Your task to perform on an android device: Open settings on Google Maps Image 0: 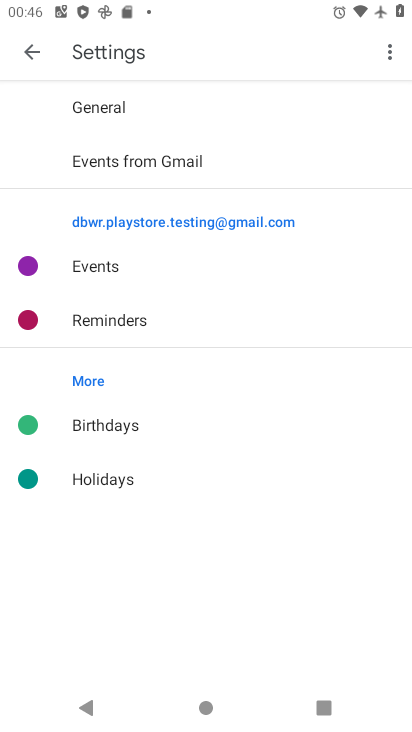
Step 0: press home button
Your task to perform on an android device: Open settings on Google Maps Image 1: 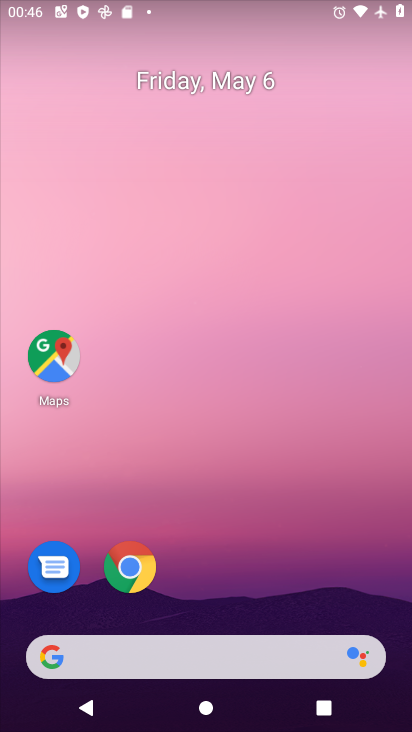
Step 1: click (58, 357)
Your task to perform on an android device: Open settings on Google Maps Image 2: 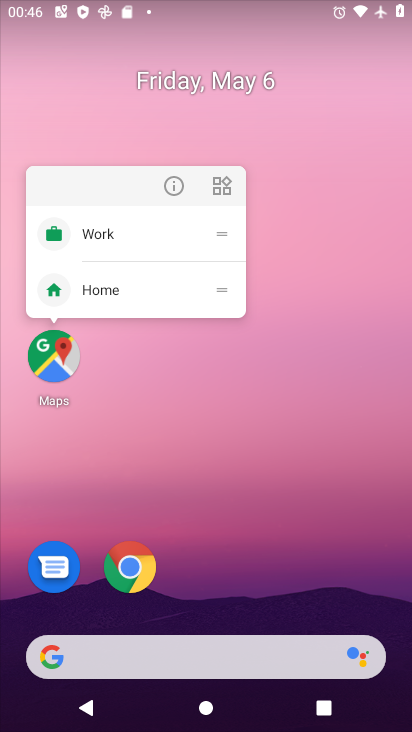
Step 2: click (58, 357)
Your task to perform on an android device: Open settings on Google Maps Image 3: 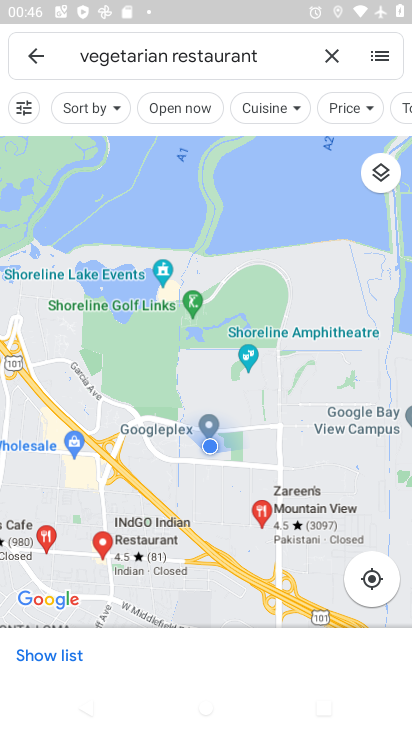
Step 3: click (392, 52)
Your task to perform on an android device: Open settings on Google Maps Image 4: 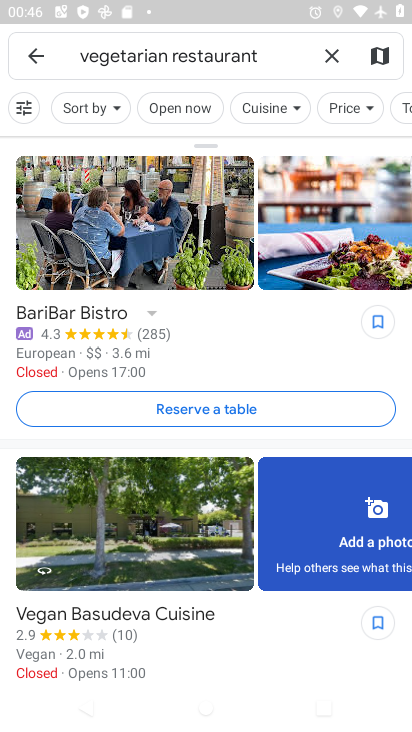
Step 4: click (25, 65)
Your task to perform on an android device: Open settings on Google Maps Image 5: 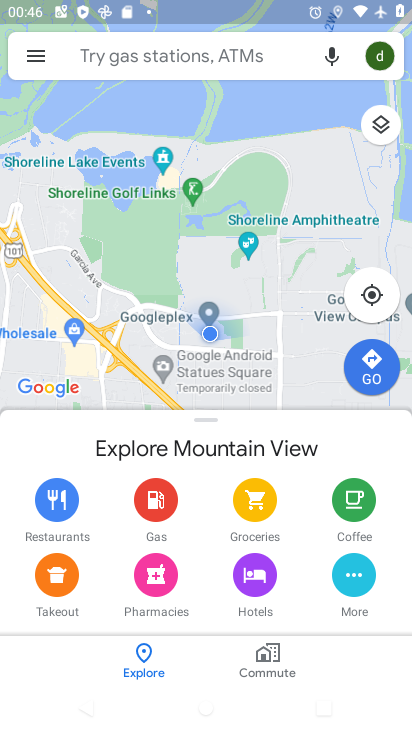
Step 5: click (25, 65)
Your task to perform on an android device: Open settings on Google Maps Image 6: 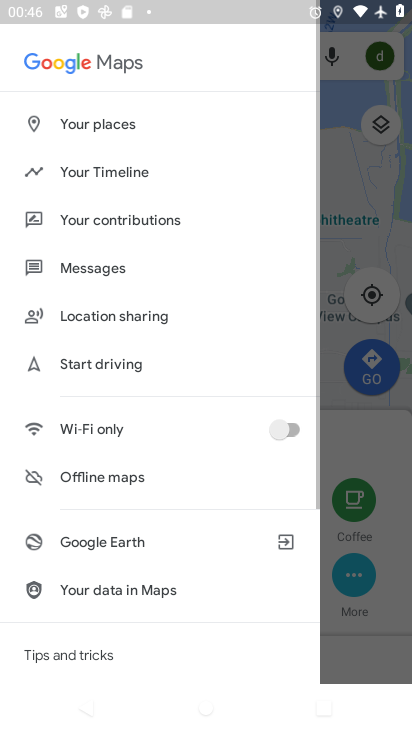
Step 6: drag from (156, 586) to (159, 279)
Your task to perform on an android device: Open settings on Google Maps Image 7: 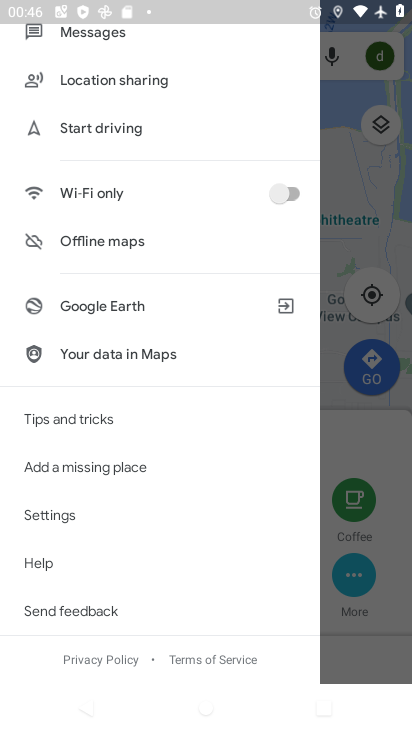
Step 7: click (42, 522)
Your task to perform on an android device: Open settings on Google Maps Image 8: 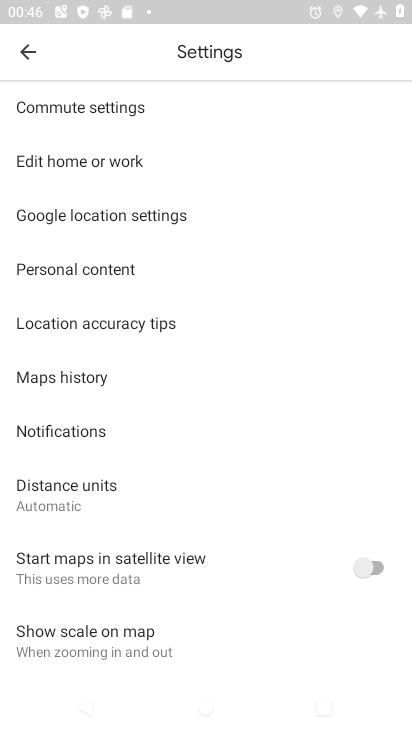
Step 8: task complete